Your task to perform on an android device: turn on improve location accuracy Image 0: 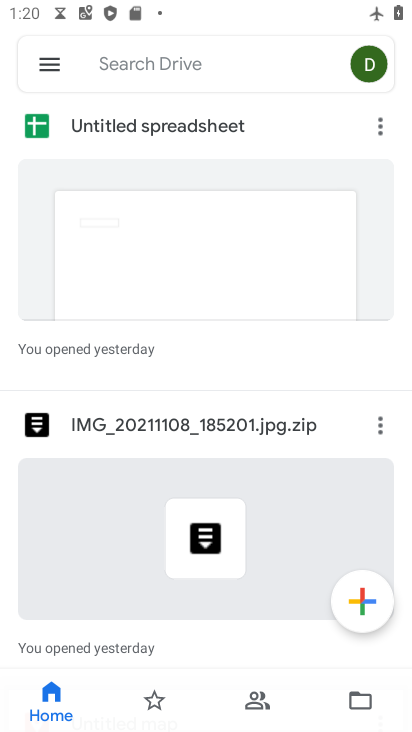
Step 0: press home button
Your task to perform on an android device: turn on improve location accuracy Image 1: 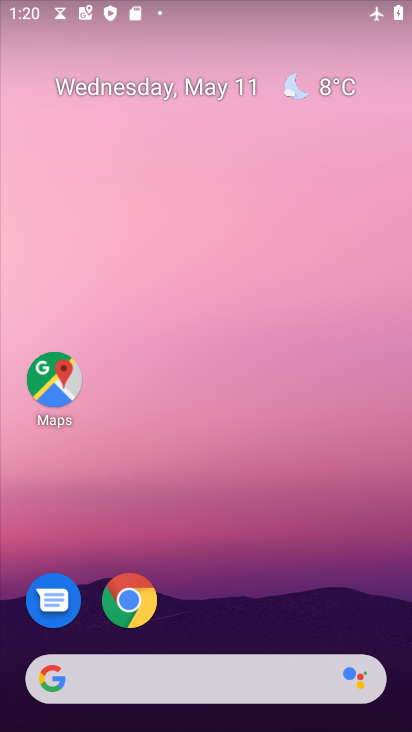
Step 1: drag from (194, 350) to (147, 57)
Your task to perform on an android device: turn on improve location accuracy Image 2: 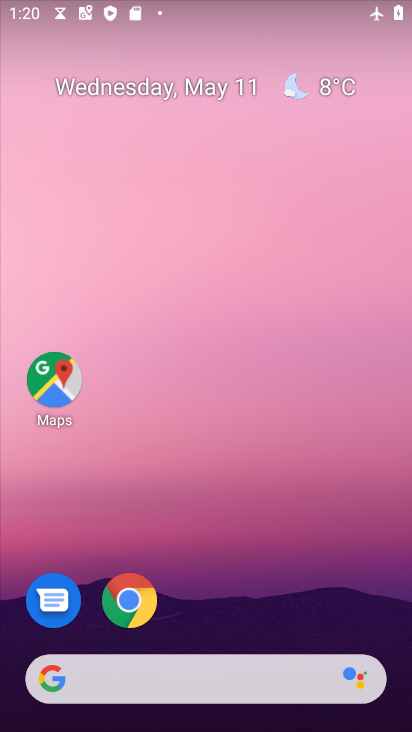
Step 2: drag from (259, 563) to (224, 18)
Your task to perform on an android device: turn on improve location accuracy Image 3: 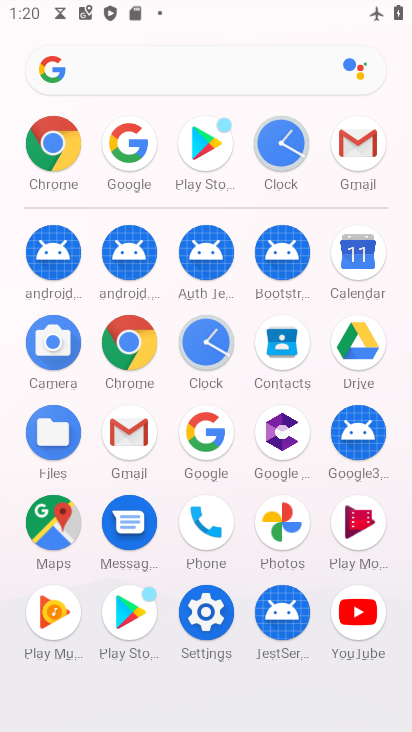
Step 3: click (205, 613)
Your task to perform on an android device: turn on improve location accuracy Image 4: 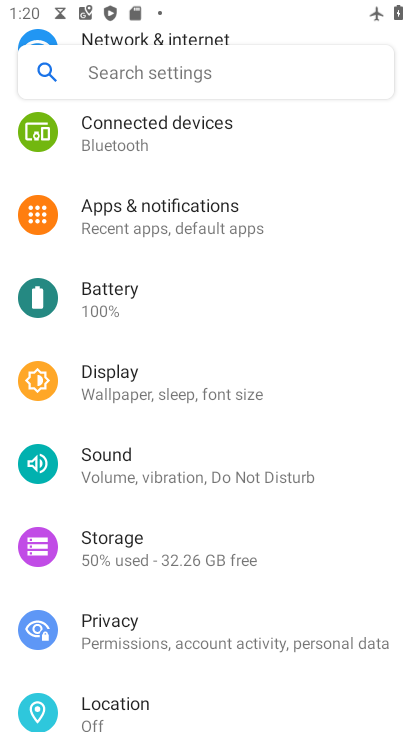
Step 4: click (182, 704)
Your task to perform on an android device: turn on improve location accuracy Image 5: 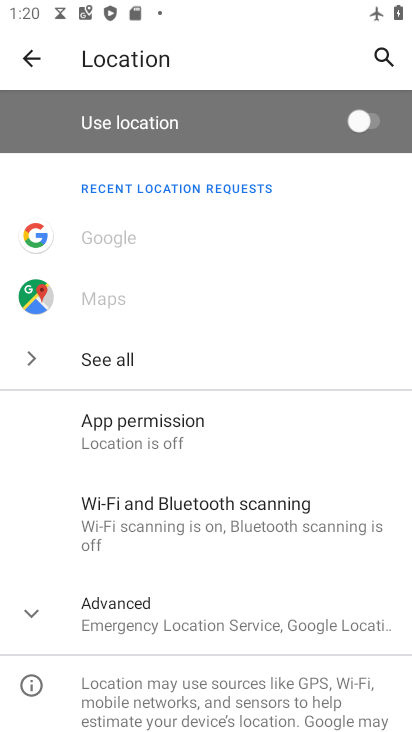
Step 5: click (165, 598)
Your task to perform on an android device: turn on improve location accuracy Image 6: 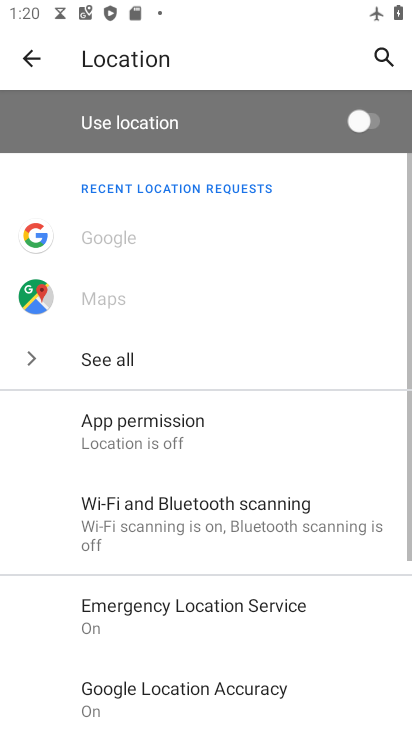
Step 6: drag from (197, 573) to (230, 288)
Your task to perform on an android device: turn on improve location accuracy Image 7: 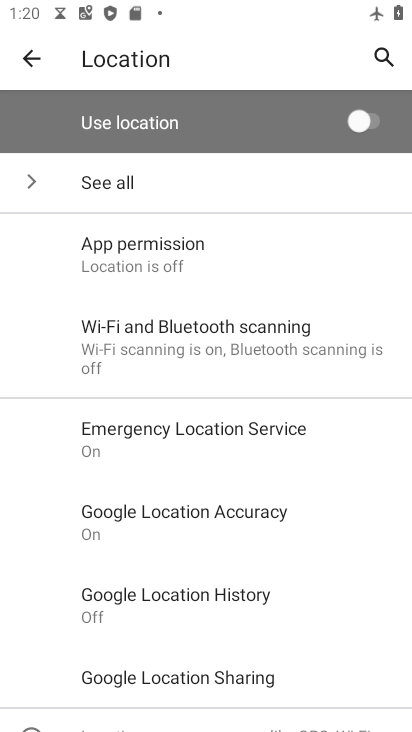
Step 7: click (214, 508)
Your task to perform on an android device: turn on improve location accuracy Image 8: 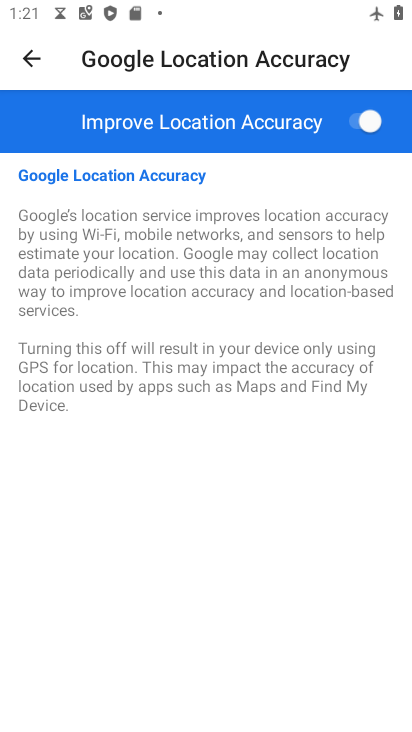
Step 8: task complete